Your task to perform on an android device: Set the phone to "Do not disturb". Image 0: 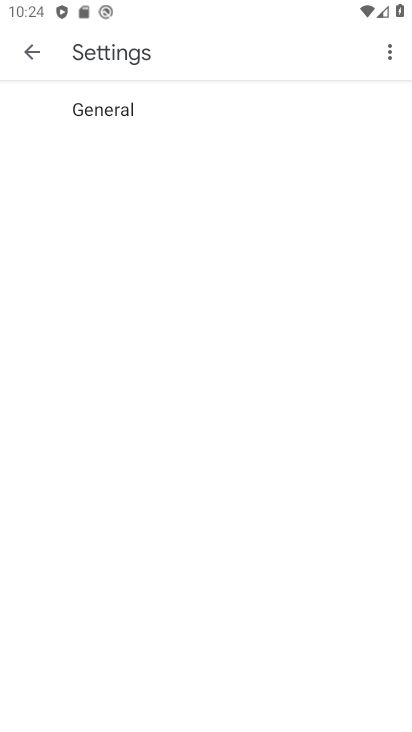
Step 0: press home button
Your task to perform on an android device: Set the phone to "Do not disturb". Image 1: 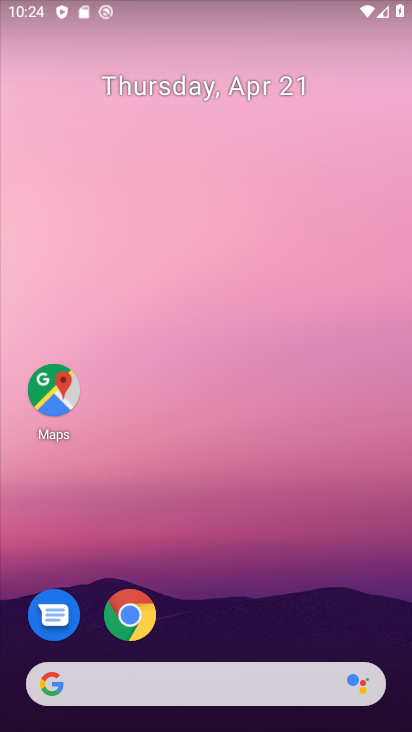
Step 1: drag from (203, 725) to (204, 164)
Your task to perform on an android device: Set the phone to "Do not disturb". Image 2: 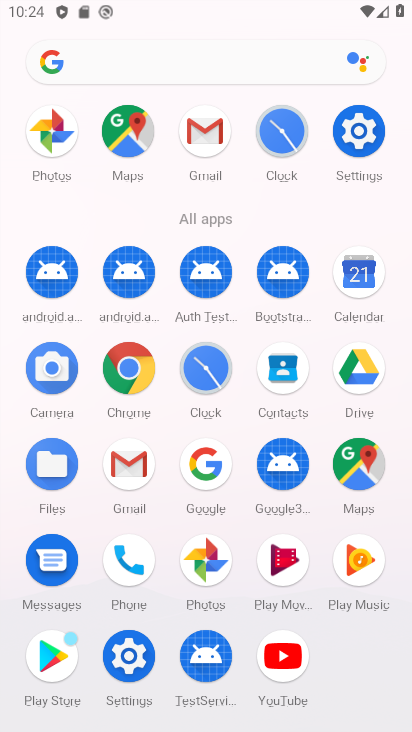
Step 2: click (358, 131)
Your task to perform on an android device: Set the phone to "Do not disturb". Image 3: 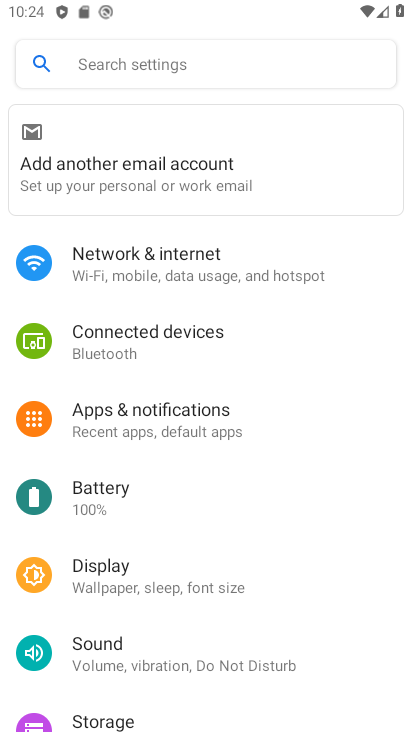
Step 3: click (182, 661)
Your task to perform on an android device: Set the phone to "Do not disturb". Image 4: 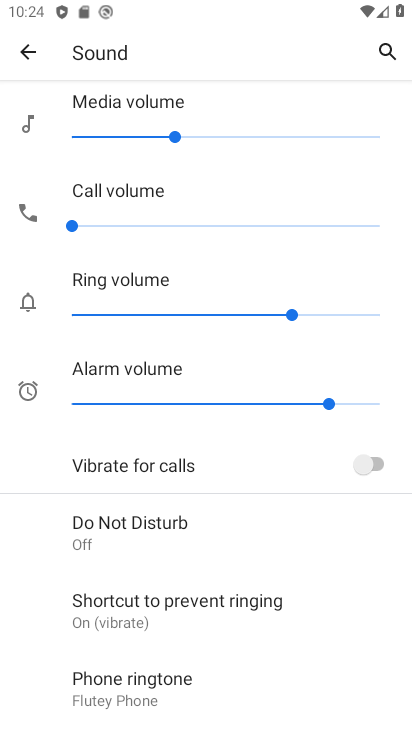
Step 4: click (96, 533)
Your task to perform on an android device: Set the phone to "Do not disturb". Image 5: 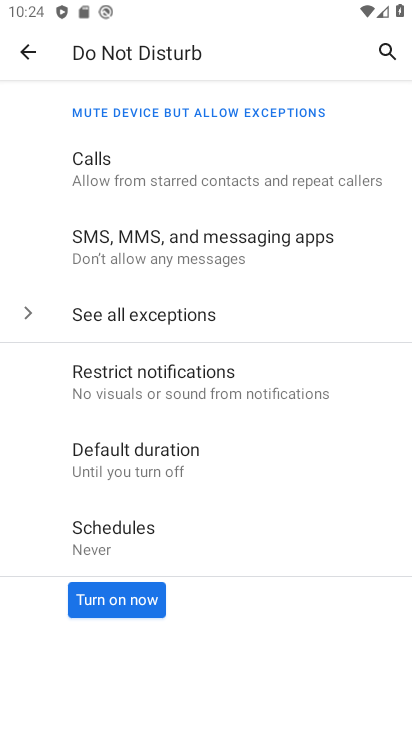
Step 5: click (106, 603)
Your task to perform on an android device: Set the phone to "Do not disturb". Image 6: 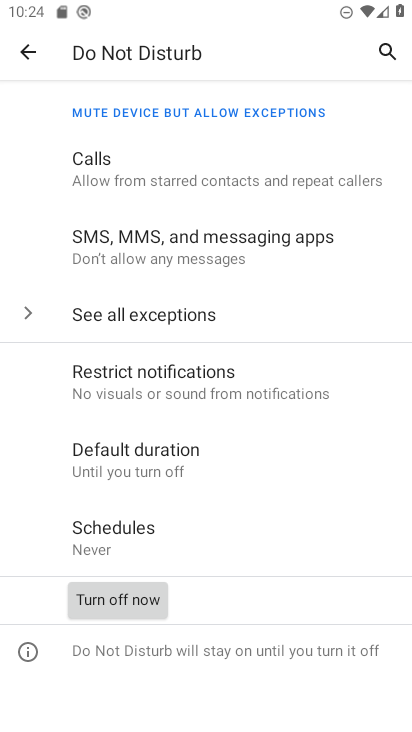
Step 6: task complete